Your task to perform on an android device: What is the recent news? Image 0: 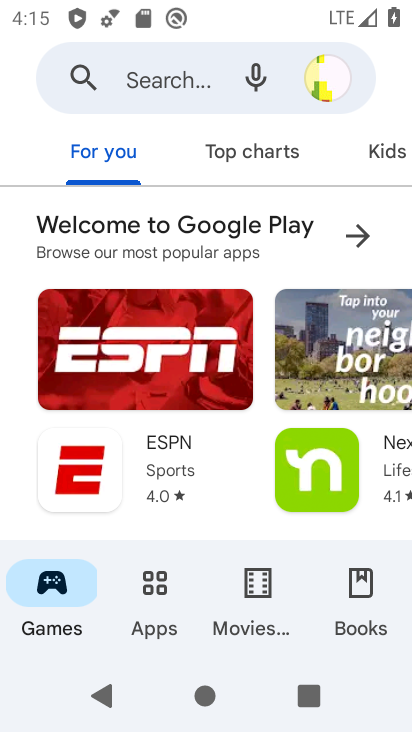
Step 0: press home button
Your task to perform on an android device: What is the recent news? Image 1: 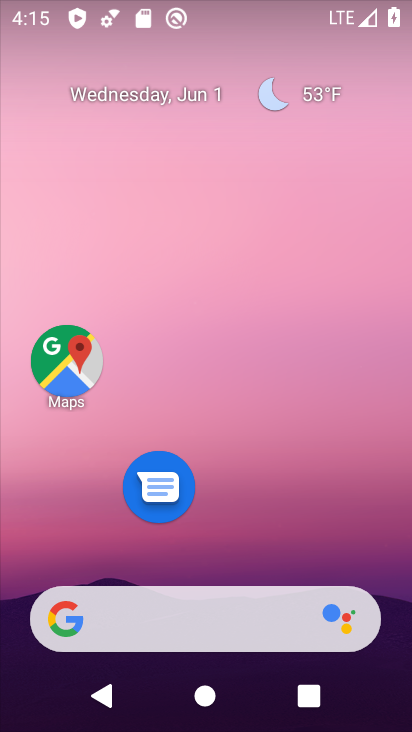
Step 1: click (157, 630)
Your task to perform on an android device: What is the recent news? Image 2: 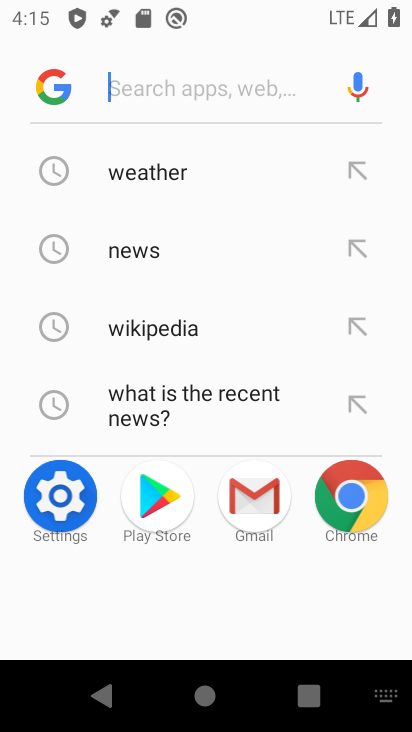
Step 2: type "recent news ?"
Your task to perform on an android device: What is the recent news? Image 3: 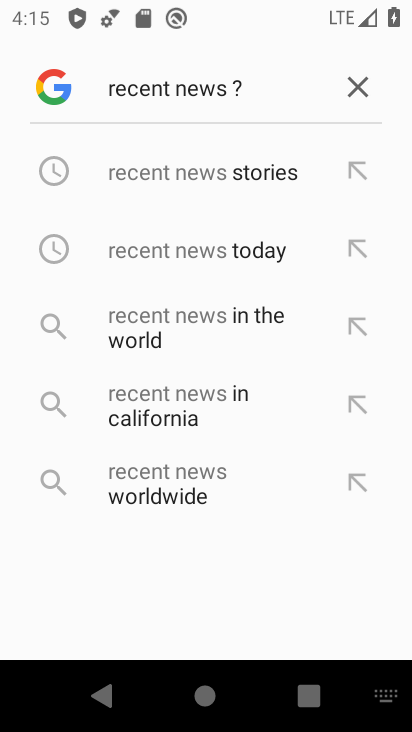
Step 3: click (197, 260)
Your task to perform on an android device: What is the recent news? Image 4: 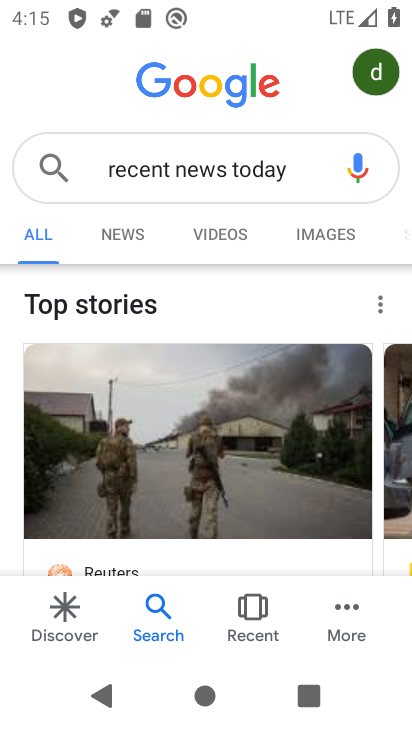
Step 4: task complete